Your task to perform on an android device: What's the weather going to be tomorrow? Image 0: 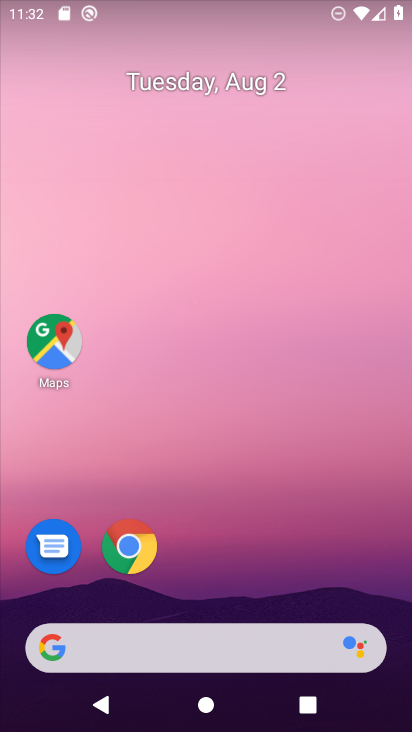
Step 0: drag from (191, 588) to (194, 150)
Your task to perform on an android device: What's the weather going to be tomorrow? Image 1: 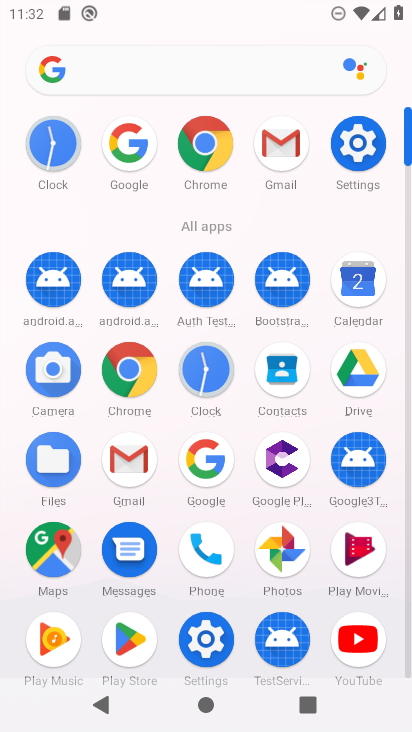
Step 1: click (201, 469)
Your task to perform on an android device: What's the weather going to be tomorrow? Image 2: 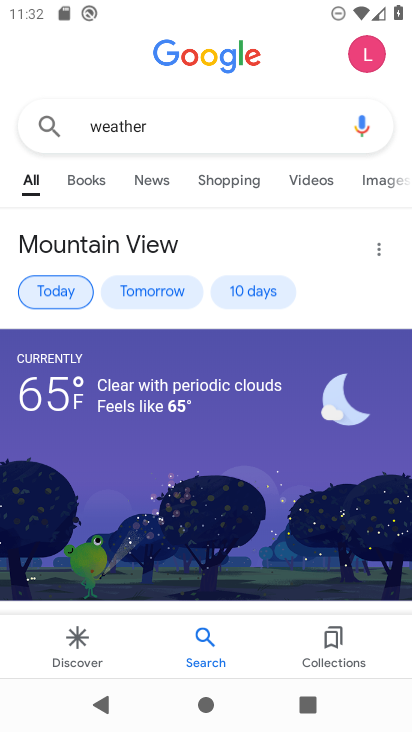
Step 2: click (180, 293)
Your task to perform on an android device: What's the weather going to be tomorrow? Image 3: 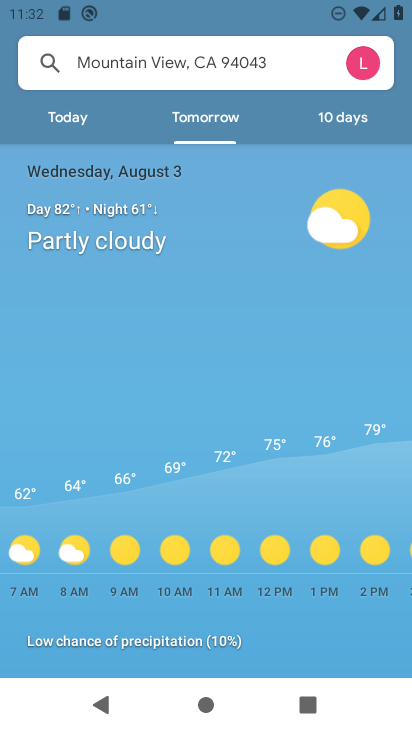
Step 3: task complete